Your task to perform on an android device: toggle javascript in the chrome app Image 0: 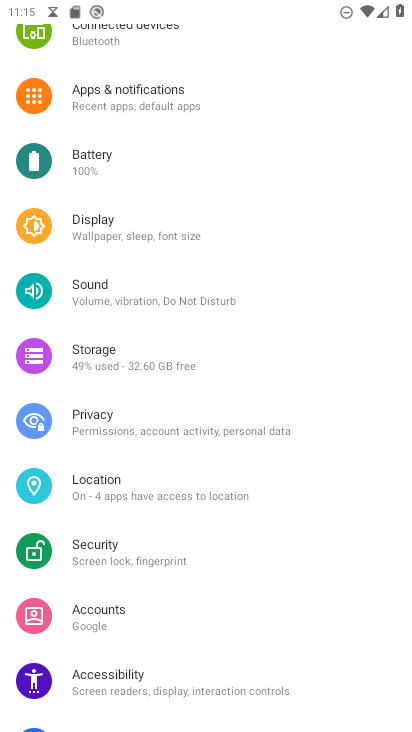
Step 0: press home button
Your task to perform on an android device: toggle javascript in the chrome app Image 1: 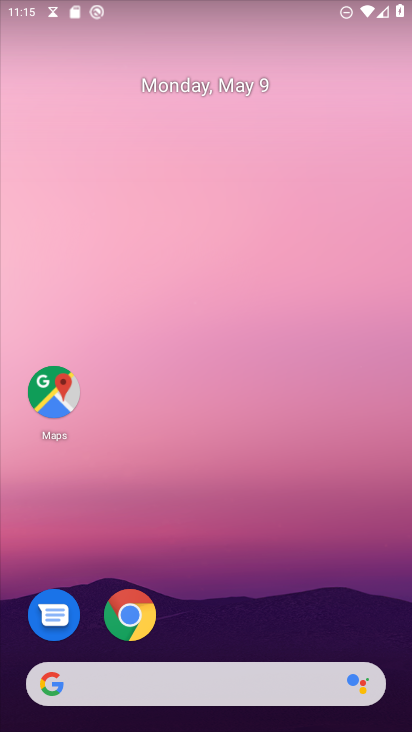
Step 1: click (124, 645)
Your task to perform on an android device: toggle javascript in the chrome app Image 2: 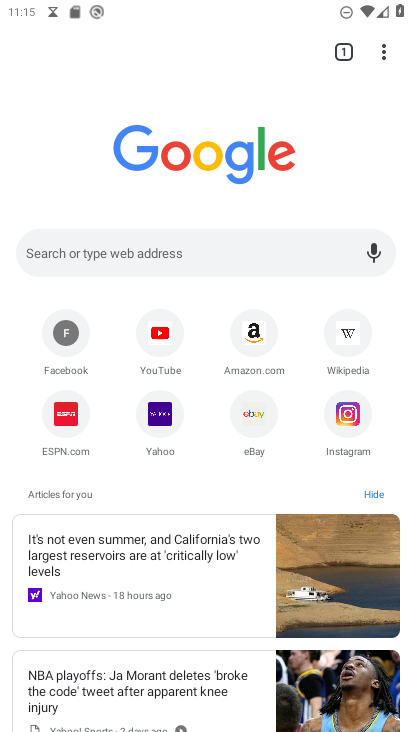
Step 2: click (384, 57)
Your task to perform on an android device: toggle javascript in the chrome app Image 3: 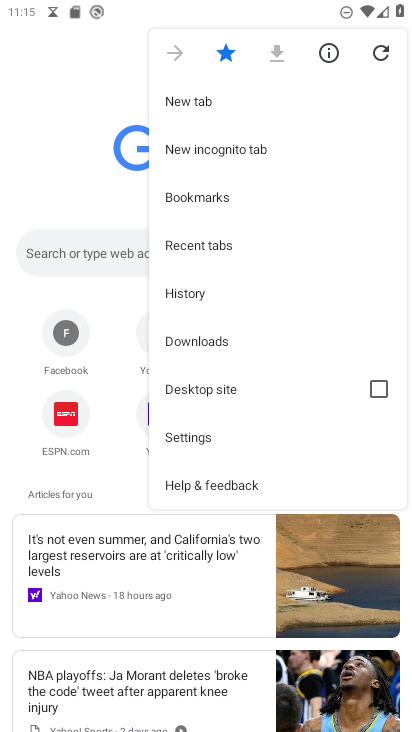
Step 3: click (180, 436)
Your task to perform on an android device: toggle javascript in the chrome app Image 4: 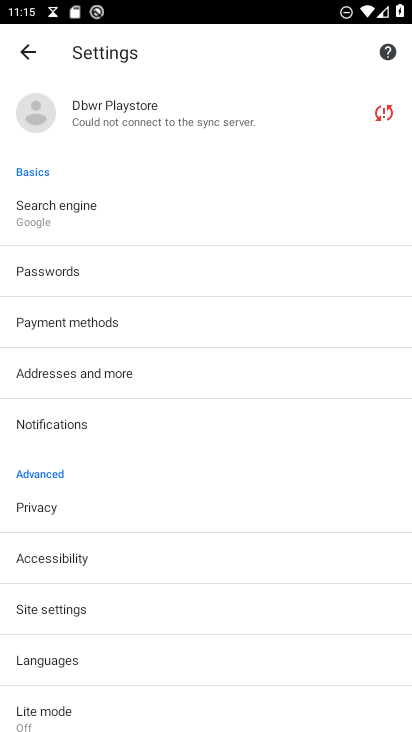
Step 4: click (69, 607)
Your task to perform on an android device: toggle javascript in the chrome app Image 5: 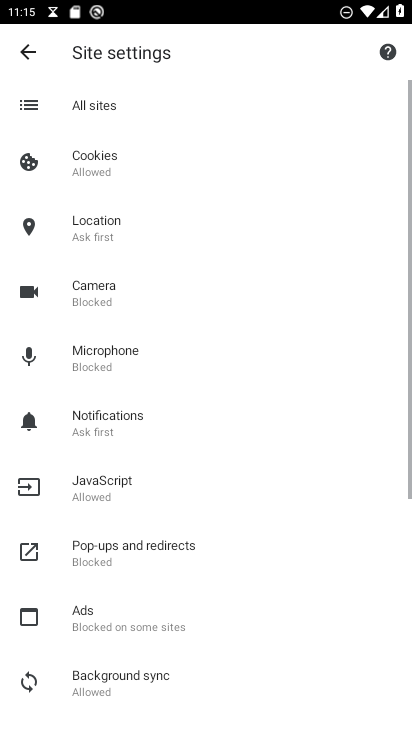
Step 5: click (109, 480)
Your task to perform on an android device: toggle javascript in the chrome app Image 6: 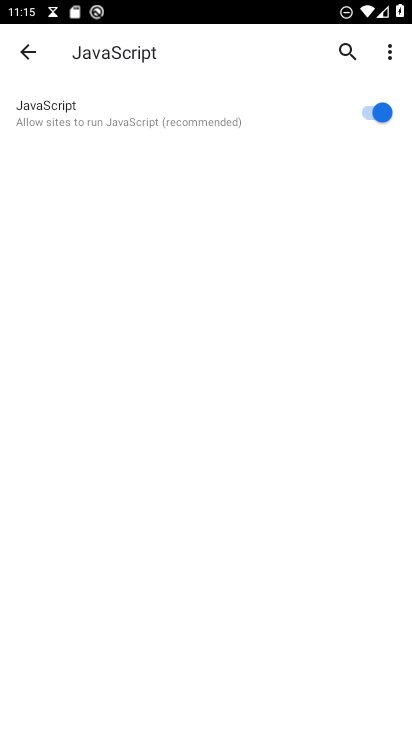
Step 6: click (368, 112)
Your task to perform on an android device: toggle javascript in the chrome app Image 7: 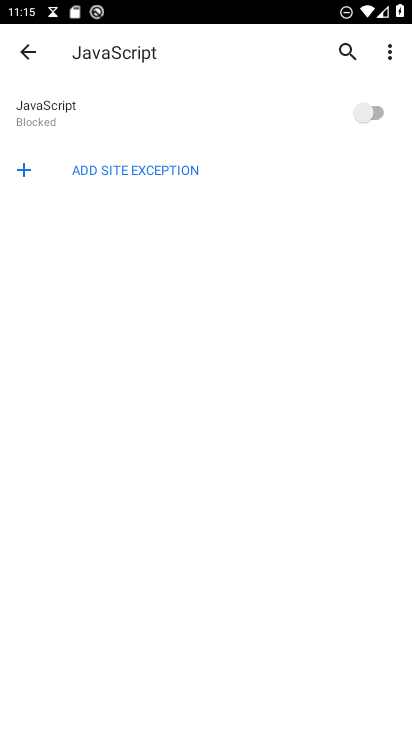
Step 7: task complete